Your task to perform on an android device: check battery use Image 0: 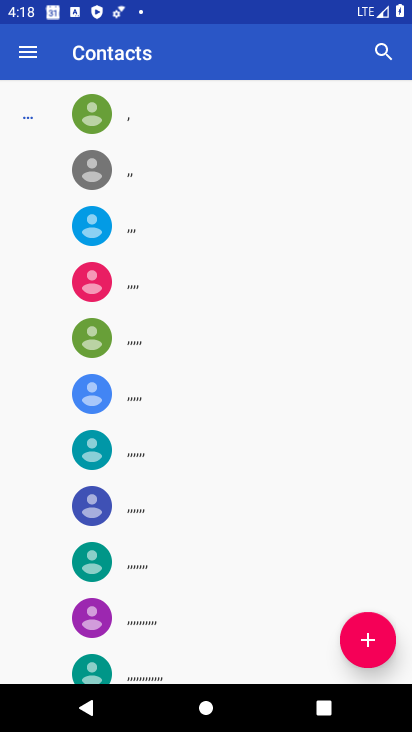
Step 0: press home button
Your task to perform on an android device: check battery use Image 1: 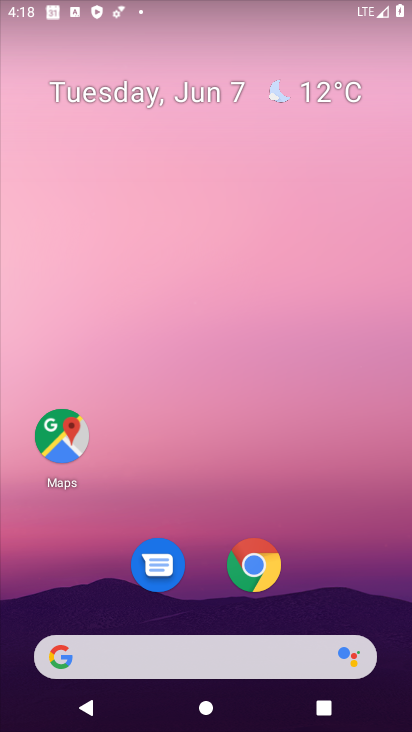
Step 1: drag from (264, 667) to (143, 133)
Your task to perform on an android device: check battery use Image 2: 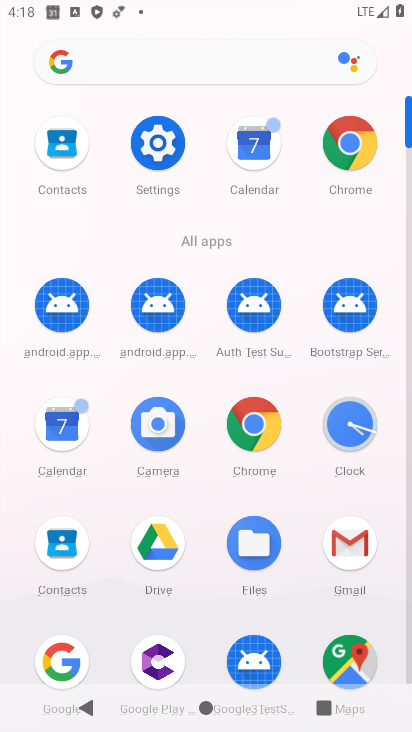
Step 2: click (163, 143)
Your task to perform on an android device: check battery use Image 3: 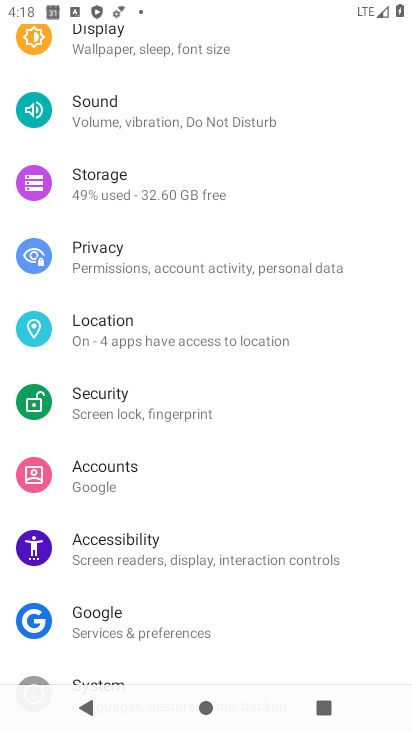
Step 3: drag from (133, 136) to (198, 540)
Your task to perform on an android device: check battery use Image 4: 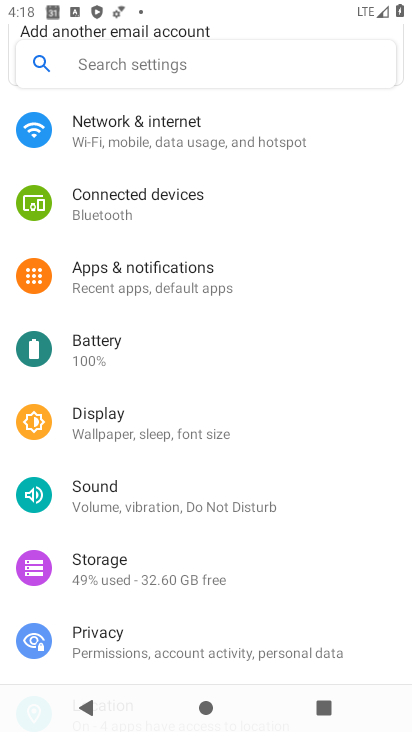
Step 4: click (131, 345)
Your task to perform on an android device: check battery use Image 5: 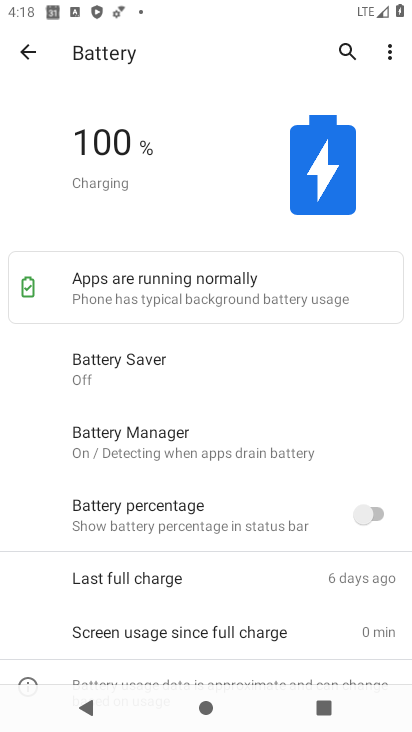
Step 5: task complete